Your task to perform on an android device: Open calendar and show me the fourth week of next month Image 0: 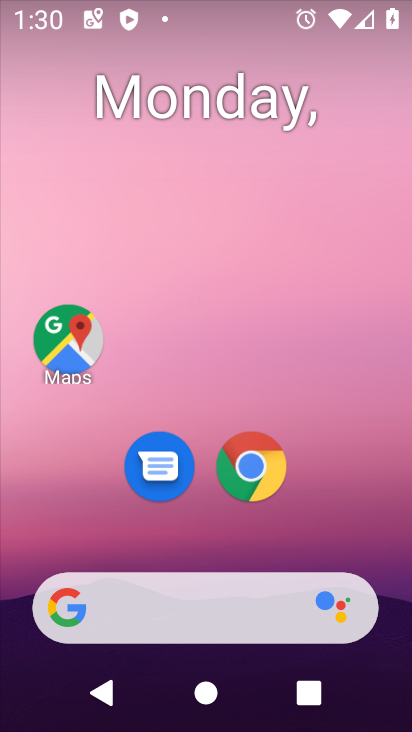
Step 0: drag from (396, 622) to (351, 247)
Your task to perform on an android device: Open calendar and show me the fourth week of next month Image 1: 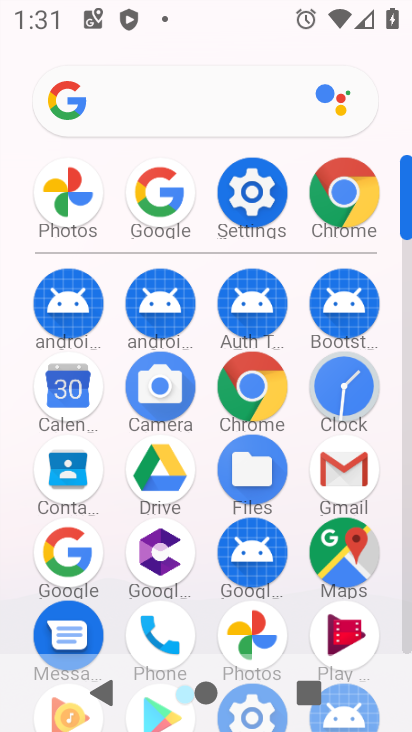
Step 1: click (81, 410)
Your task to perform on an android device: Open calendar and show me the fourth week of next month Image 2: 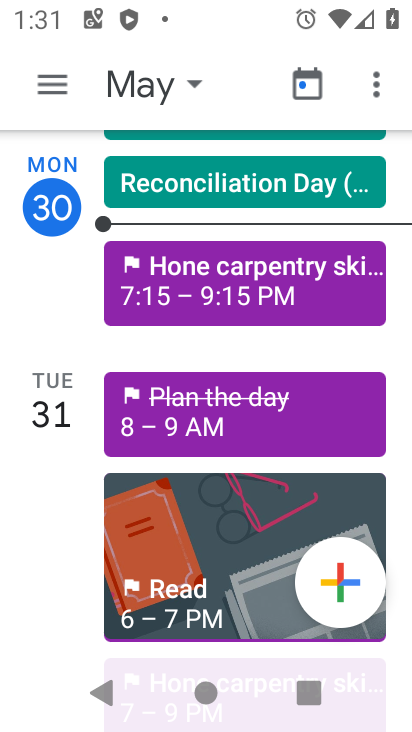
Step 2: click (141, 85)
Your task to perform on an android device: Open calendar and show me the fourth week of next month Image 3: 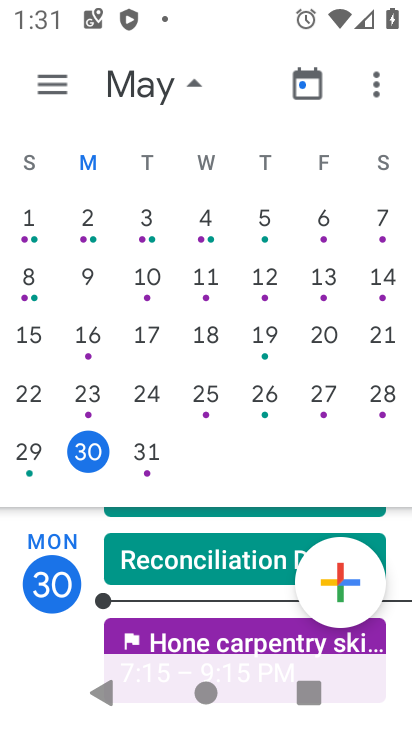
Step 3: drag from (394, 345) to (0, 346)
Your task to perform on an android device: Open calendar and show me the fourth week of next month Image 4: 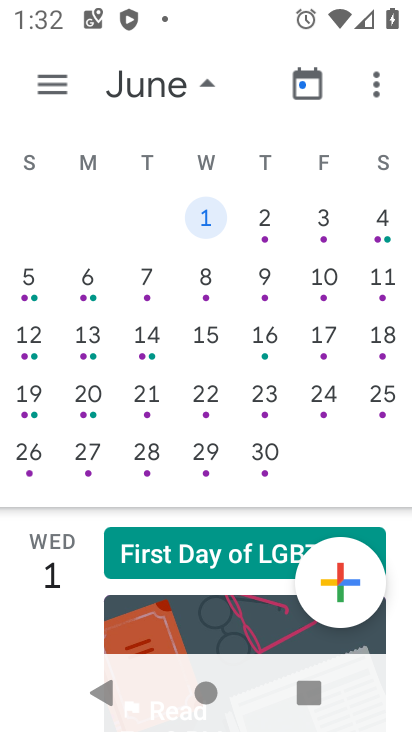
Step 4: click (98, 462)
Your task to perform on an android device: Open calendar and show me the fourth week of next month Image 5: 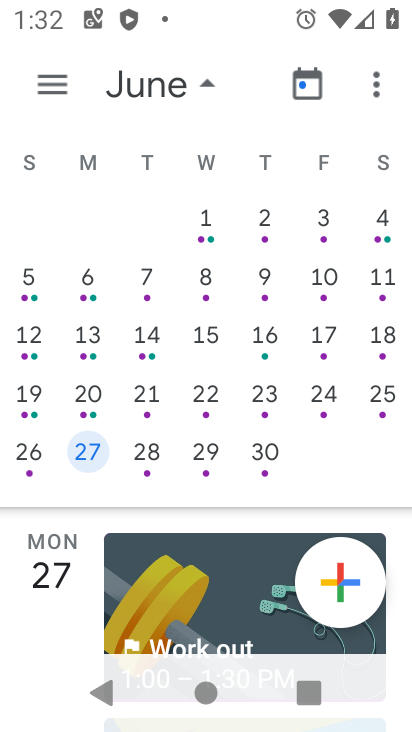
Step 5: task complete